Your task to perform on an android device: toggle location history Image 0: 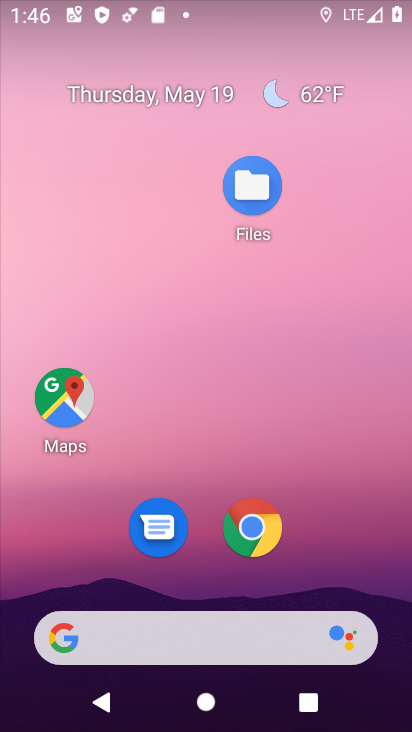
Step 0: drag from (340, 557) to (352, 79)
Your task to perform on an android device: toggle location history Image 1: 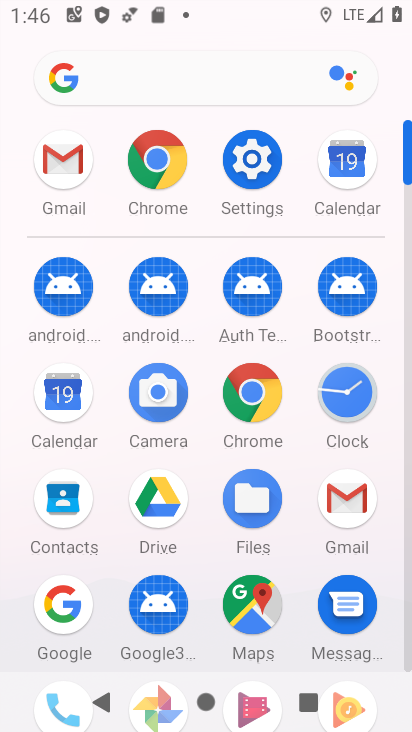
Step 1: click (264, 165)
Your task to perform on an android device: toggle location history Image 2: 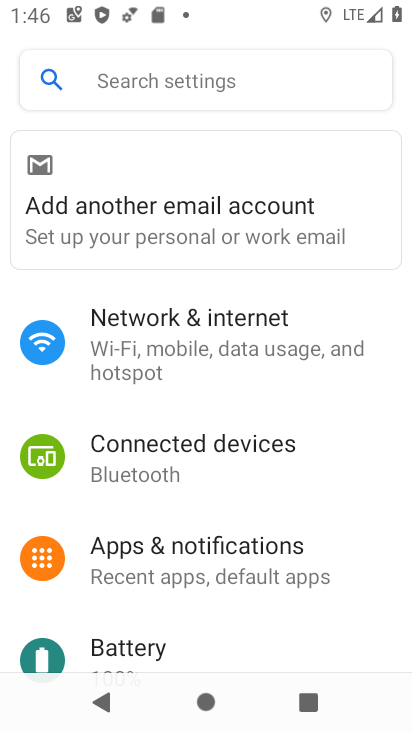
Step 2: drag from (276, 597) to (288, 236)
Your task to perform on an android device: toggle location history Image 3: 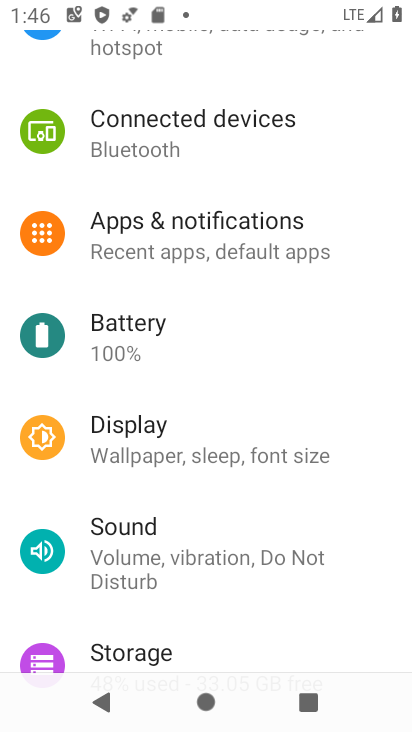
Step 3: drag from (221, 602) to (263, 298)
Your task to perform on an android device: toggle location history Image 4: 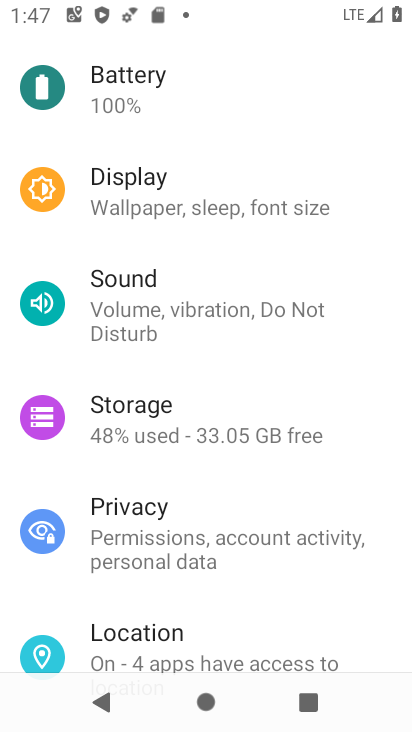
Step 4: click (228, 644)
Your task to perform on an android device: toggle location history Image 5: 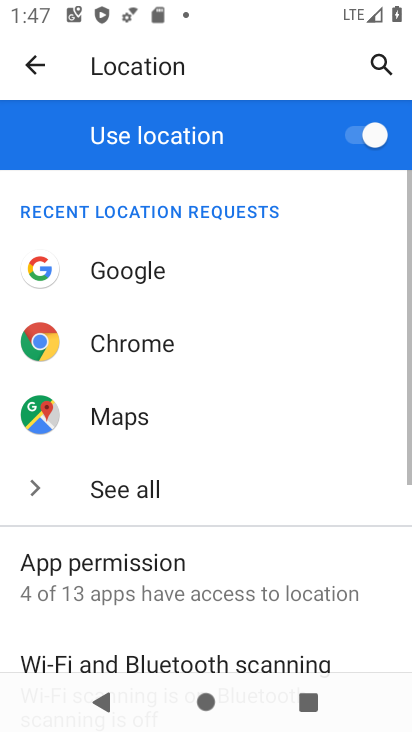
Step 5: drag from (310, 619) to (312, 291)
Your task to perform on an android device: toggle location history Image 6: 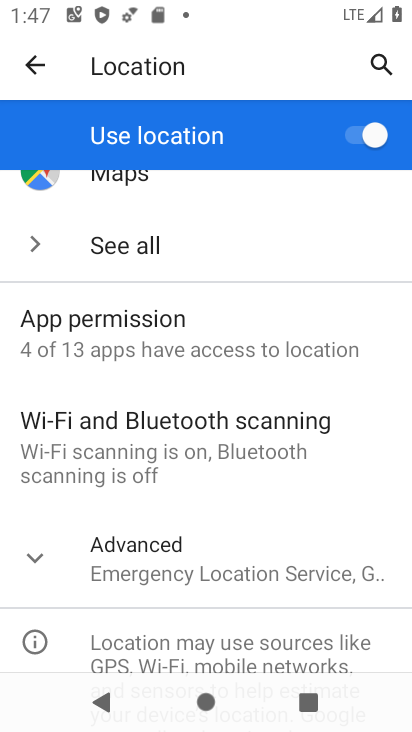
Step 6: click (271, 553)
Your task to perform on an android device: toggle location history Image 7: 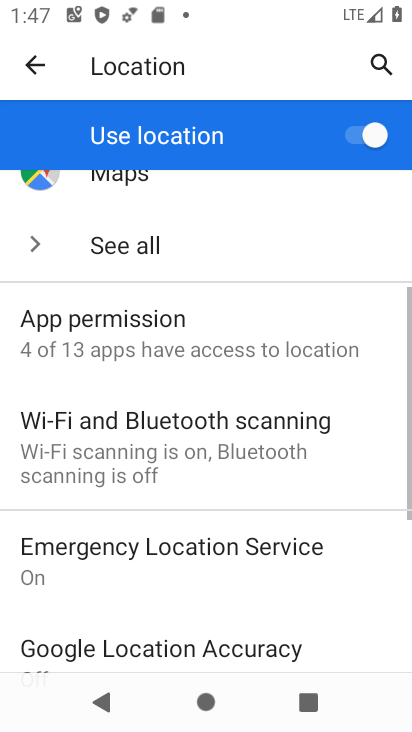
Step 7: drag from (315, 610) to (332, 362)
Your task to perform on an android device: toggle location history Image 8: 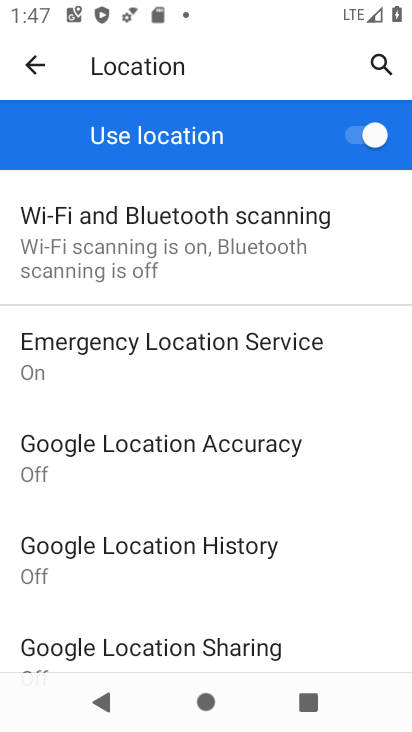
Step 8: click (239, 536)
Your task to perform on an android device: toggle location history Image 9: 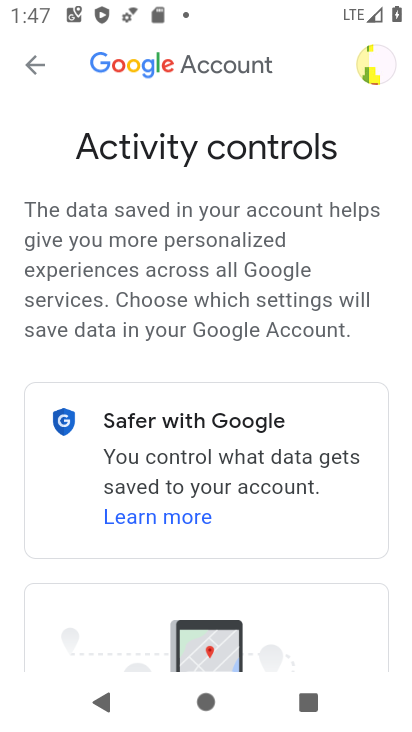
Step 9: drag from (271, 589) to (291, 336)
Your task to perform on an android device: toggle location history Image 10: 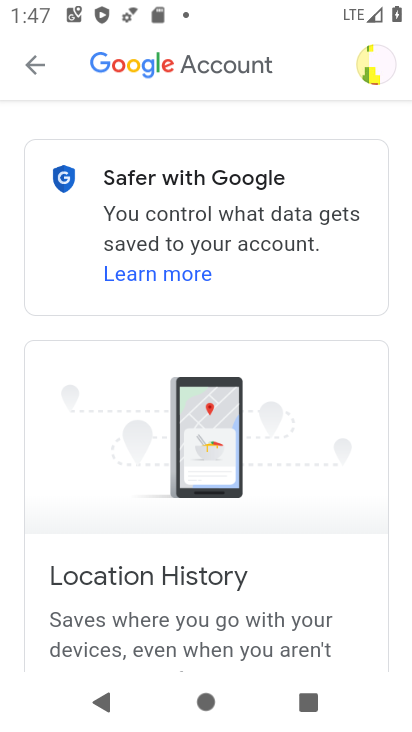
Step 10: drag from (311, 556) to (319, 182)
Your task to perform on an android device: toggle location history Image 11: 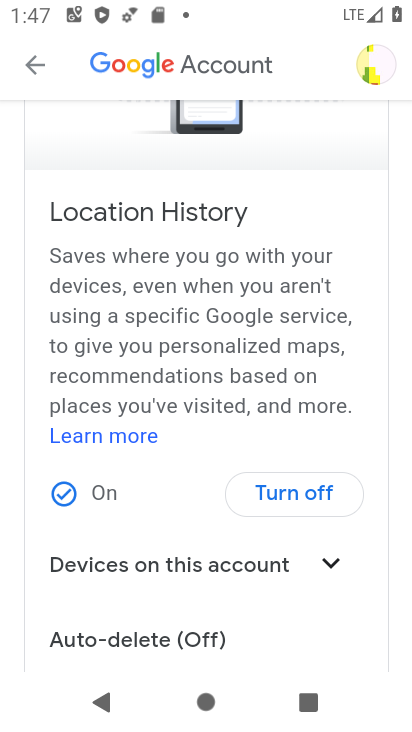
Step 11: drag from (229, 560) to (257, 303)
Your task to perform on an android device: toggle location history Image 12: 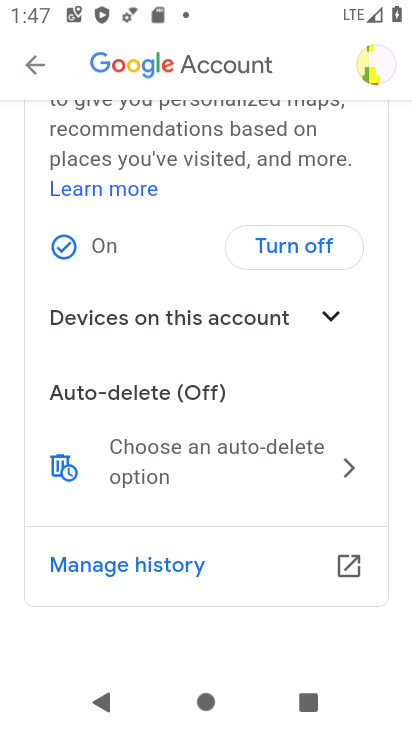
Step 12: click (170, 557)
Your task to perform on an android device: toggle location history Image 13: 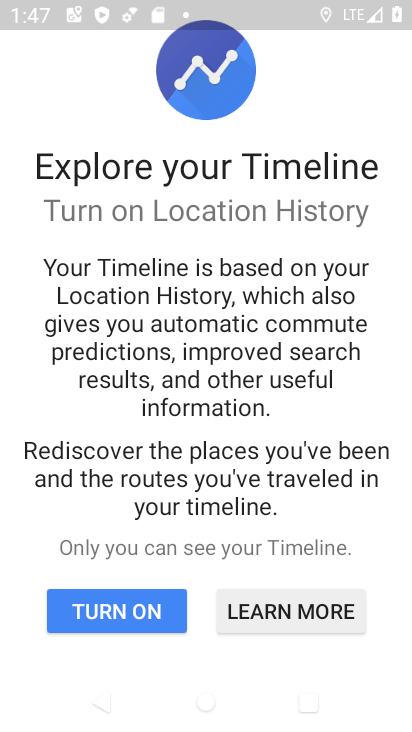
Step 13: drag from (201, 628) to (251, 338)
Your task to perform on an android device: toggle location history Image 14: 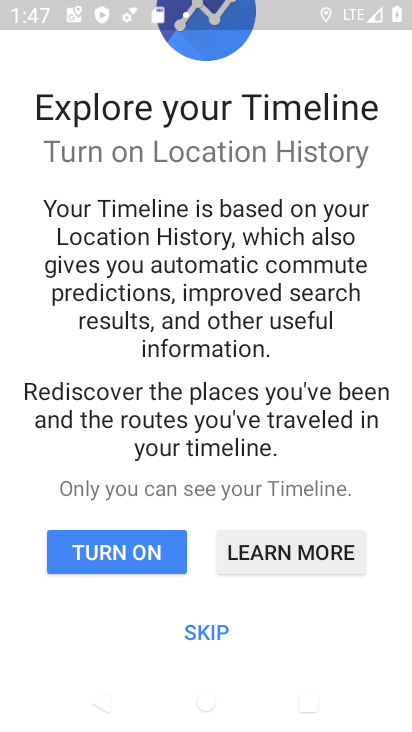
Step 14: click (202, 643)
Your task to perform on an android device: toggle location history Image 15: 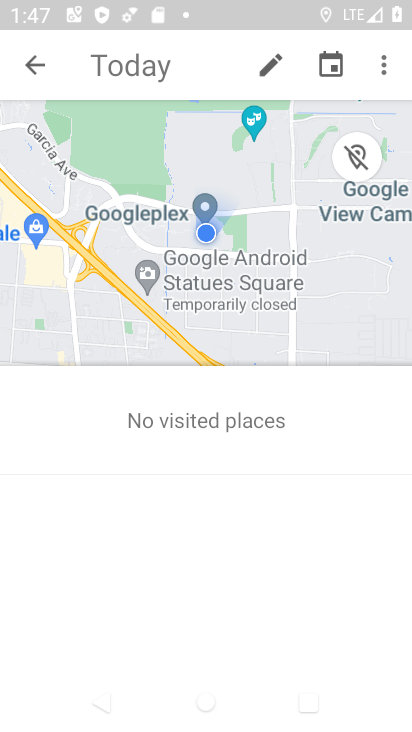
Step 15: drag from (383, 68) to (283, 416)
Your task to perform on an android device: toggle location history Image 16: 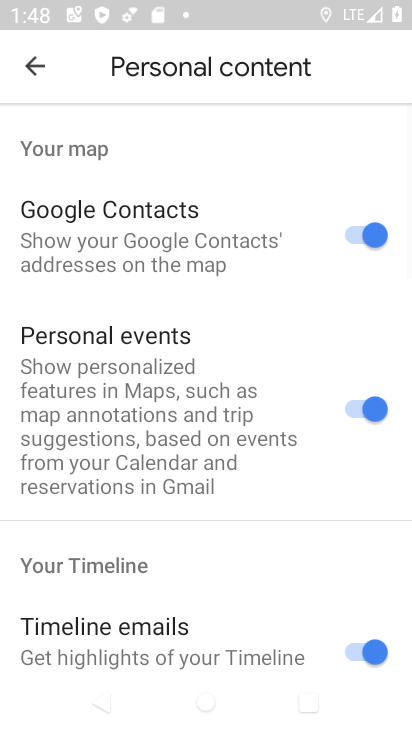
Step 16: drag from (280, 582) to (297, 204)
Your task to perform on an android device: toggle location history Image 17: 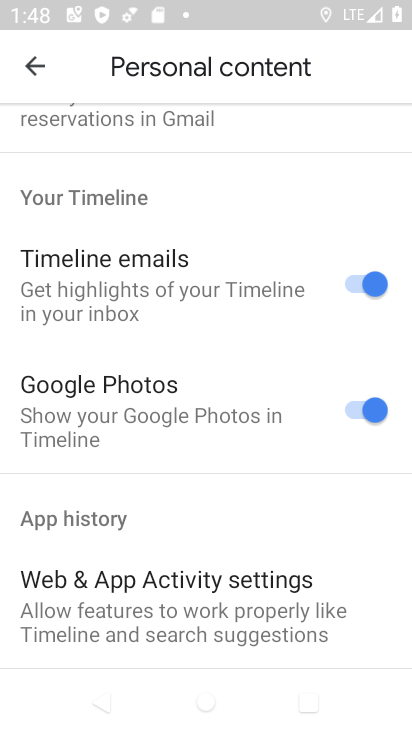
Step 17: drag from (273, 525) to (276, 278)
Your task to perform on an android device: toggle location history Image 18: 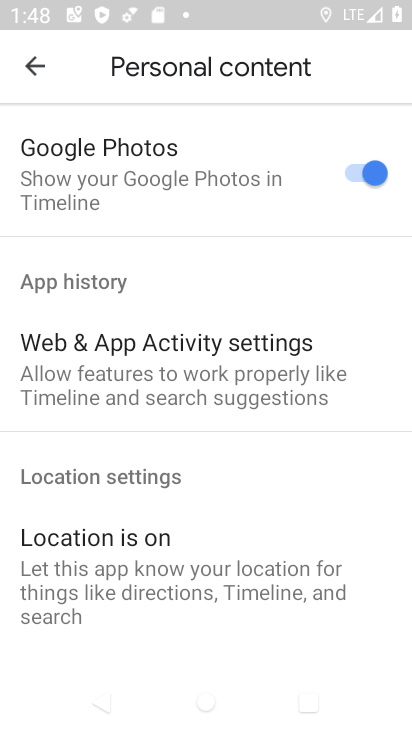
Step 18: drag from (293, 550) to (293, 264)
Your task to perform on an android device: toggle location history Image 19: 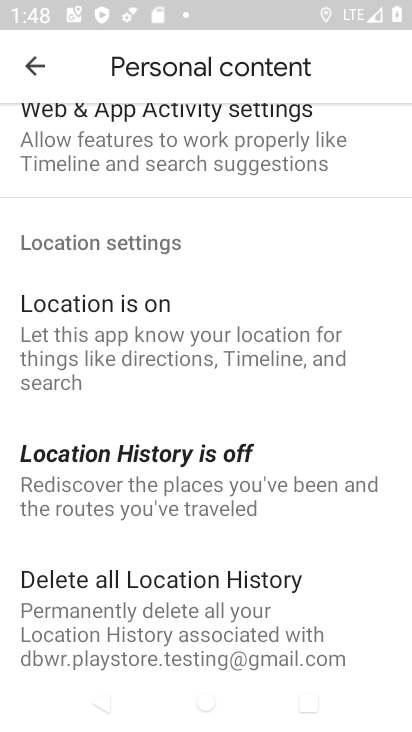
Step 19: click (167, 295)
Your task to perform on an android device: toggle location history Image 20: 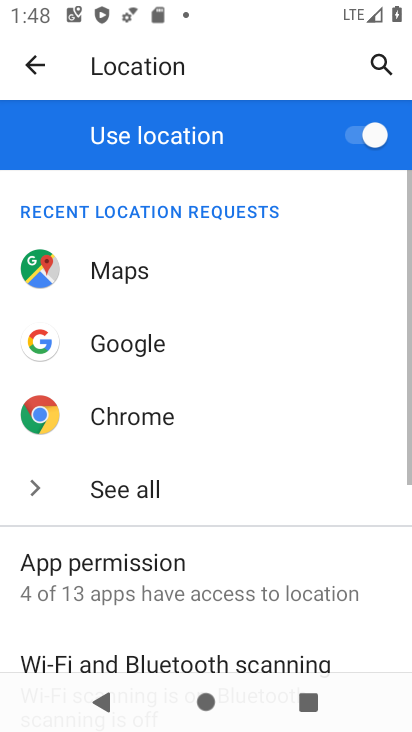
Step 20: click (363, 142)
Your task to perform on an android device: toggle location history Image 21: 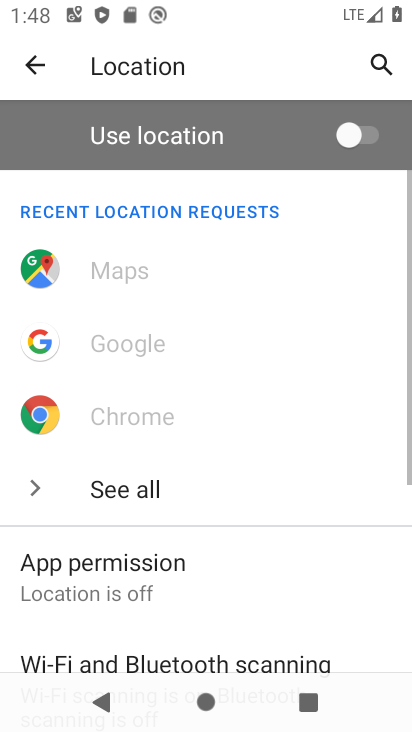
Step 21: task complete